Your task to perform on an android device: Open privacy settings Image 0: 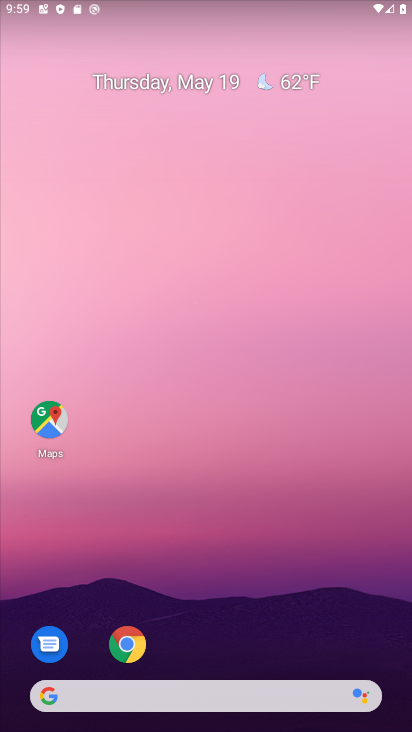
Step 0: drag from (264, 591) to (120, 285)
Your task to perform on an android device: Open privacy settings Image 1: 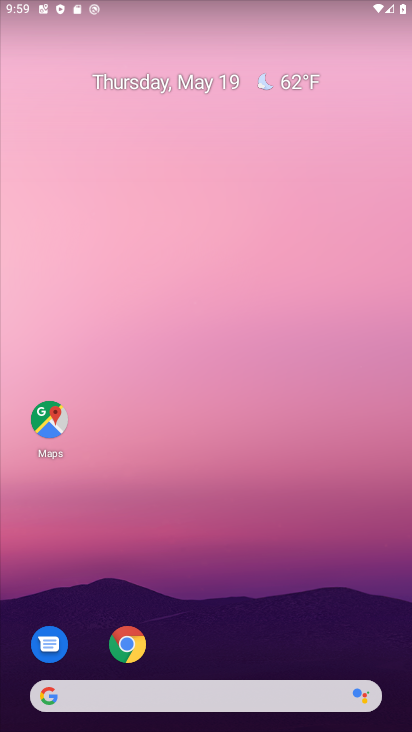
Step 1: drag from (369, 596) to (68, 19)
Your task to perform on an android device: Open privacy settings Image 2: 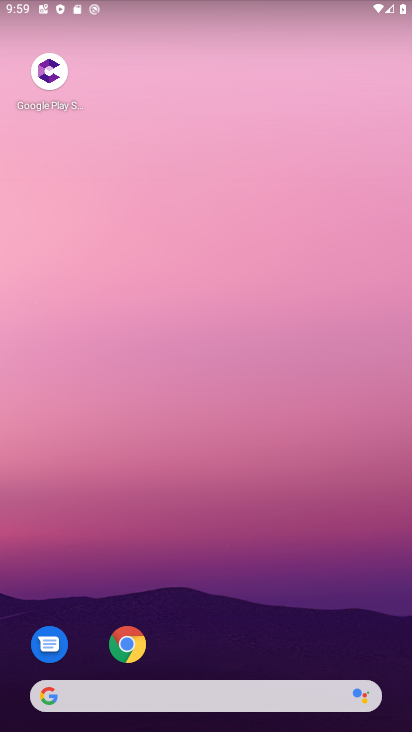
Step 2: drag from (216, 476) to (216, 29)
Your task to perform on an android device: Open privacy settings Image 3: 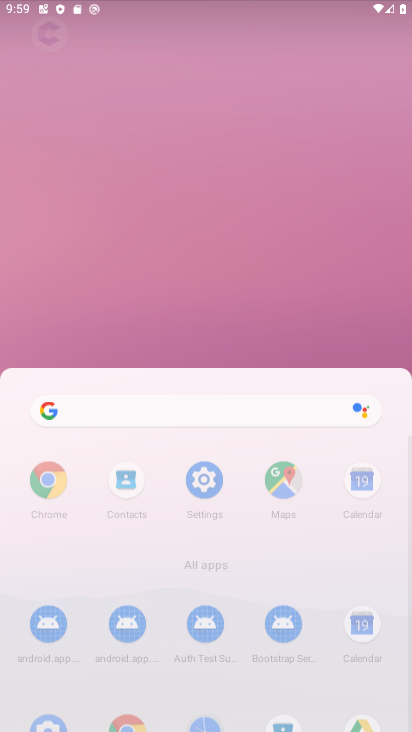
Step 3: drag from (269, 448) to (93, 24)
Your task to perform on an android device: Open privacy settings Image 4: 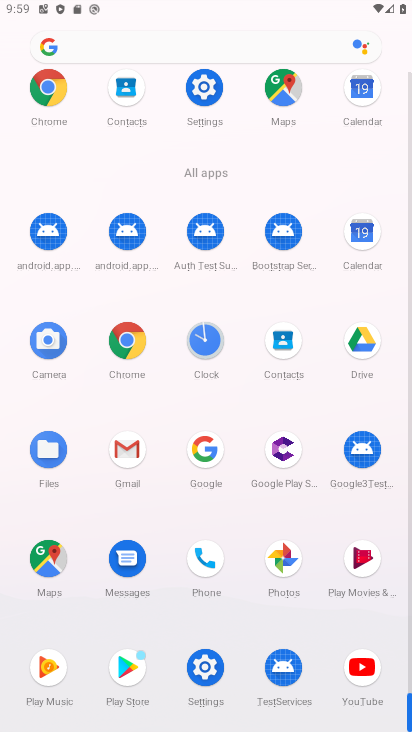
Step 4: click (205, 91)
Your task to perform on an android device: Open privacy settings Image 5: 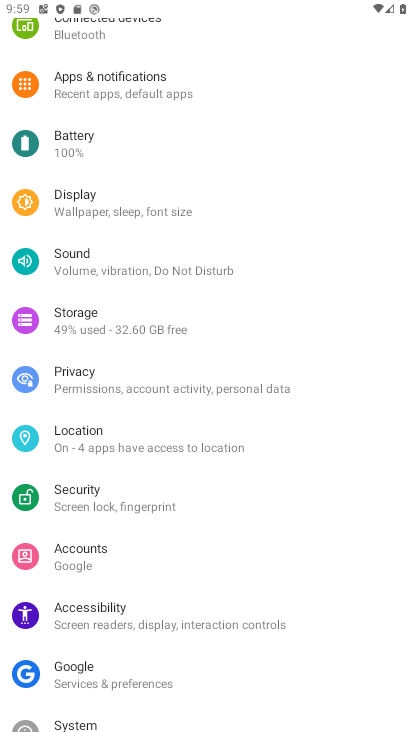
Step 5: click (72, 388)
Your task to perform on an android device: Open privacy settings Image 6: 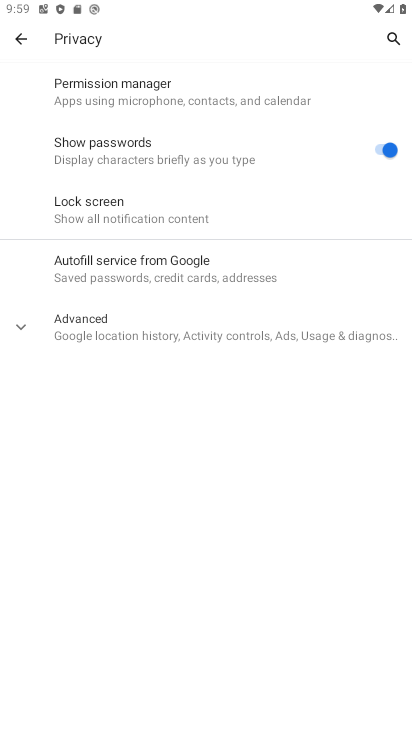
Step 6: task complete